Your task to perform on an android device: Open display settings Image 0: 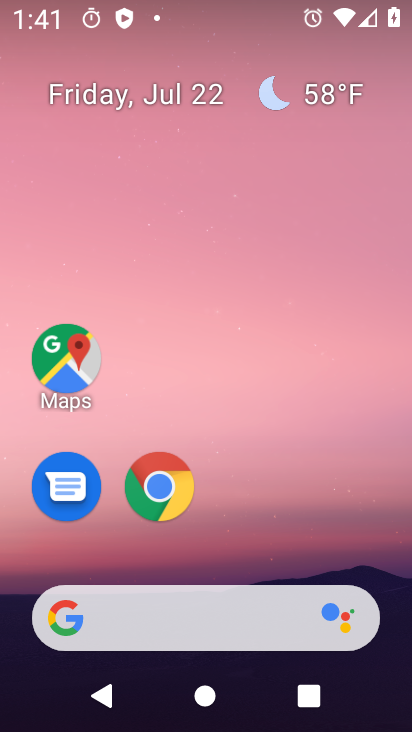
Step 0: press home button
Your task to perform on an android device: Open display settings Image 1: 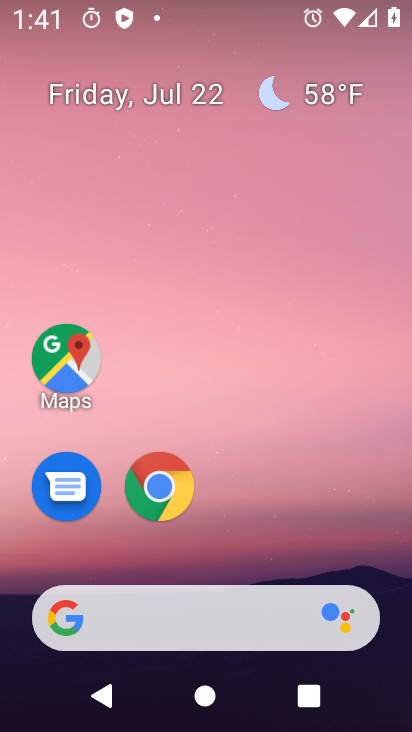
Step 1: drag from (356, 517) to (371, 169)
Your task to perform on an android device: Open display settings Image 2: 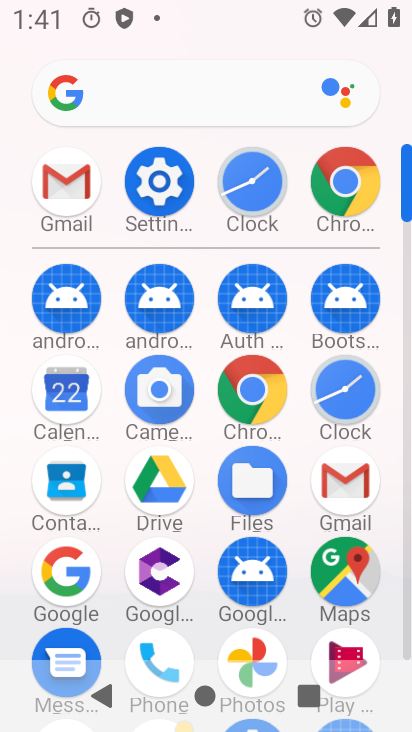
Step 2: click (154, 203)
Your task to perform on an android device: Open display settings Image 3: 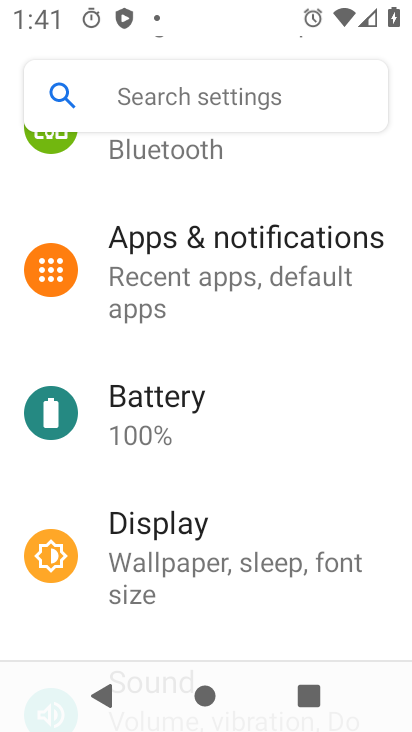
Step 3: drag from (300, 423) to (317, 294)
Your task to perform on an android device: Open display settings Image 4: 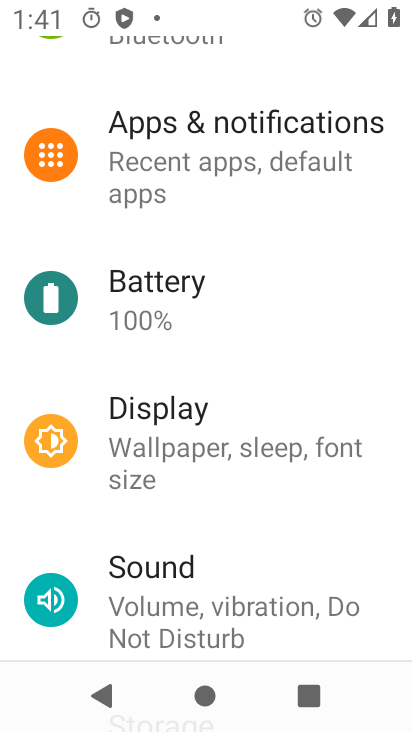
Step 4: drag from (348, 512) to (350, 376)
Your task to perform on an android device: Open display settings Image 5: 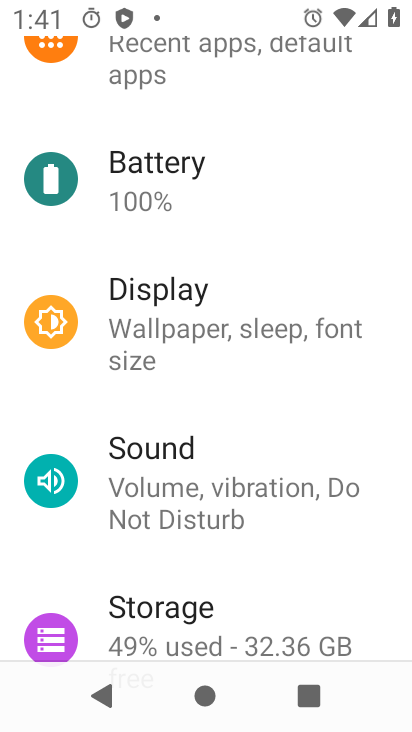
Step 5: drag from (350, 503) to (355, 384)
Your task to perform on an android device: Open display settings Image 6: 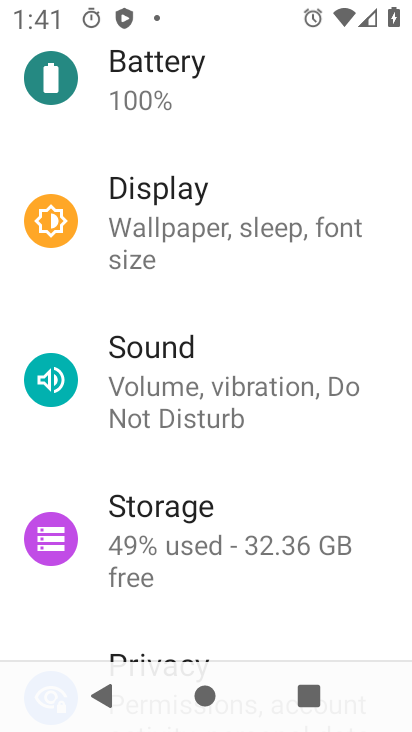
Step 6: drag from (347, 585) to (350, 453)
Your task to perform on an android device: Open display settings Image 7: 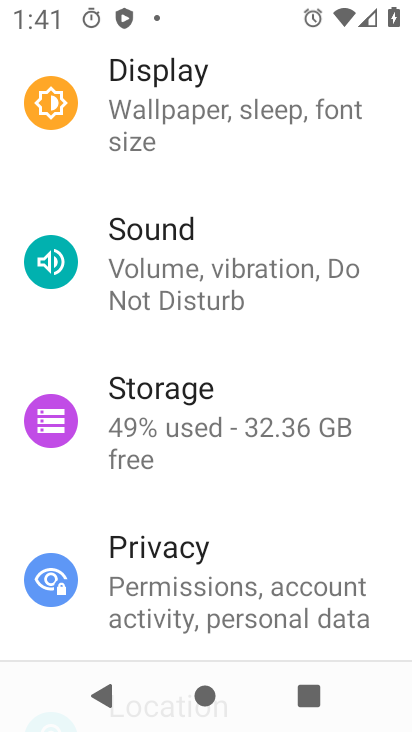
Step 7: drag from (354, 529) to (356, 417)
Your task to perform on an android device: Open display settings Image 8: 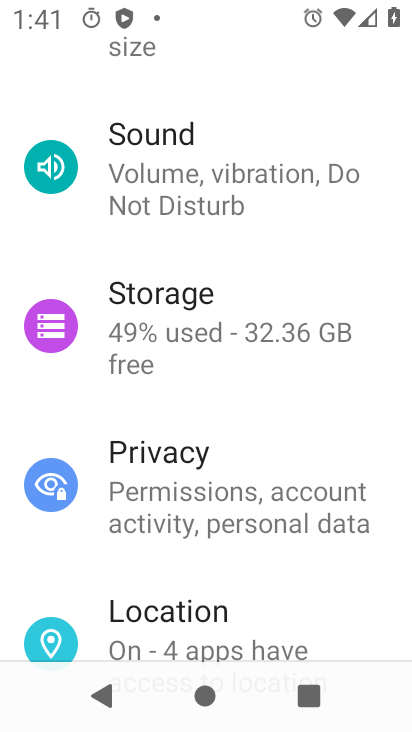
Step 8: drag from (353, 598) to (353, 408)
Your task to perform on an android device: Open display settings Image 9: 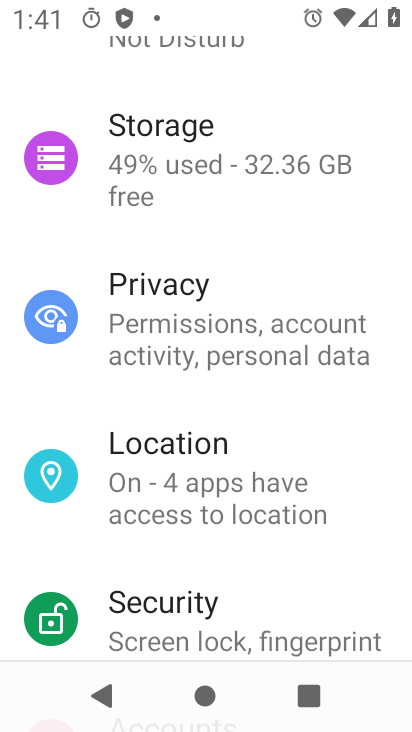
Step 9: drag from (336, 563) to (337, 449)
Your task to perform on an android device: Open display settings Image 10: 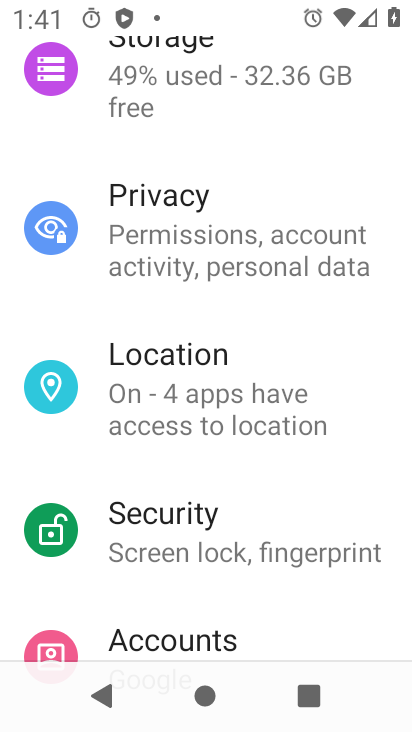
Step 10: drag from (331, 577) to (334, 478)
Your task to perform on an android device: Open display settings Image 11: 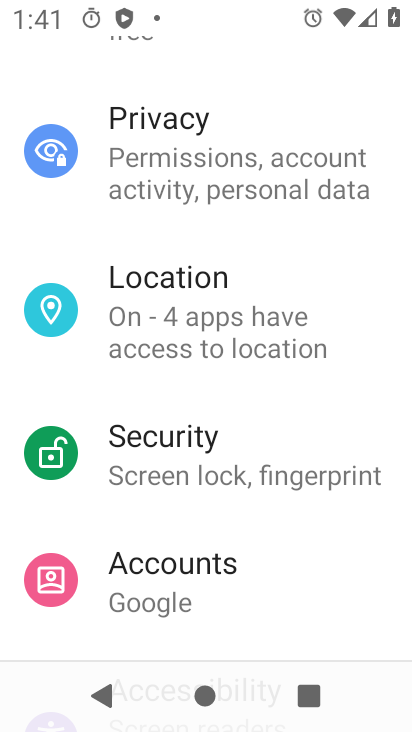
Step 11: drag from (338, 342) to (338, 456)
Your task to perform on an android device: Open display settings Image 12: 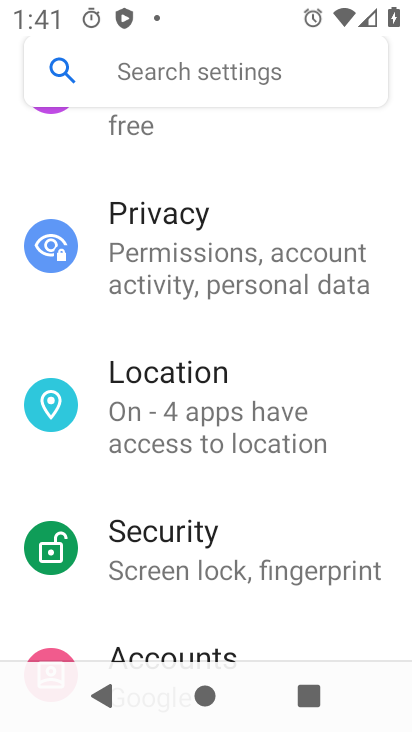
Step 12: drag from (338, 355) to (341, 459)
Your task to perform on an android device: Open display settings Image 13: 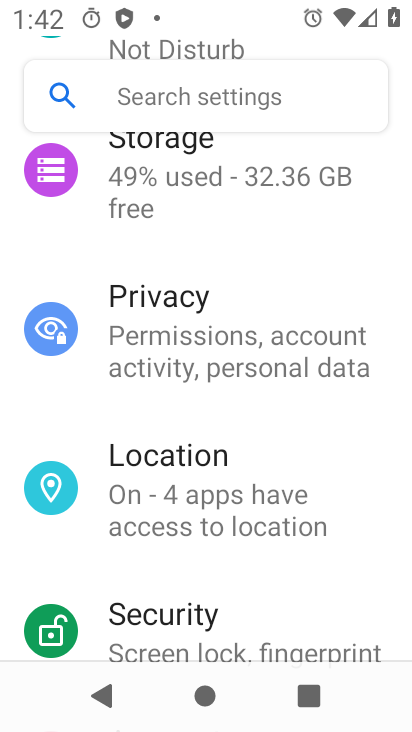
Step 13: drag from (350, 295) to (352, 418)
Your task to perform on an android device: Open display settings Image 14: 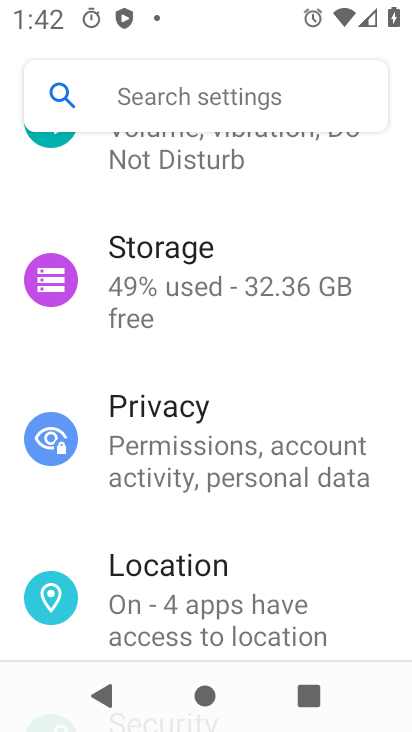
Step 14: drag from (367, 285) to (369, 391)
Your task to perform on an android device: Open display settings Image 15: 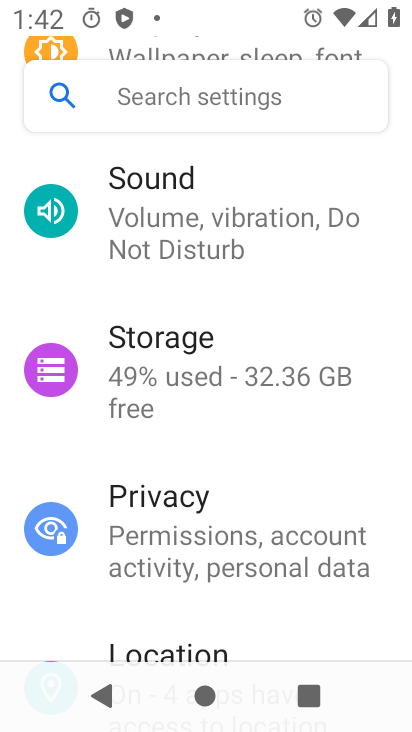
Step 15: drag from (369, 274) to (367, 418)
Your task to perform on an android device: Open display settings Image 16: 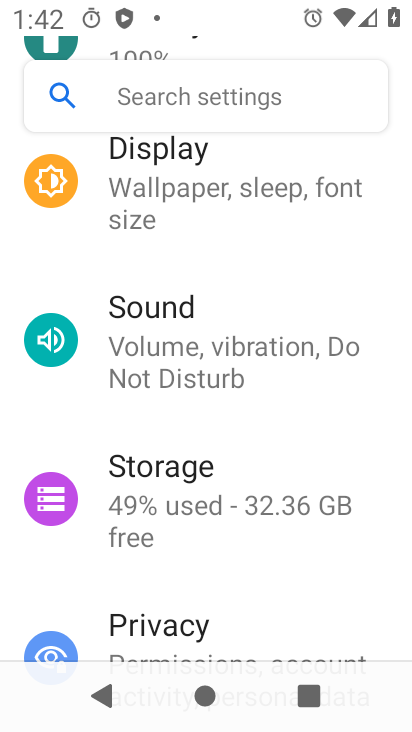
Step 16: drag from (351, 266) to (342, 403)
Your task to perform on an android device: Open display settings Image 17: 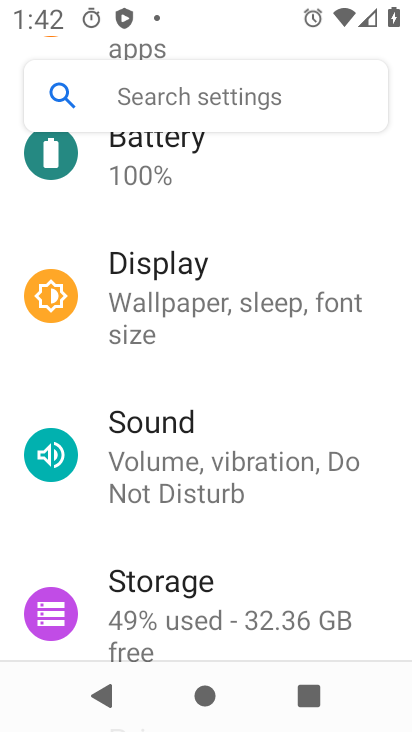
Step 17: click (332, 333)
Your task to perform on an android device: Open display settings Image 18: 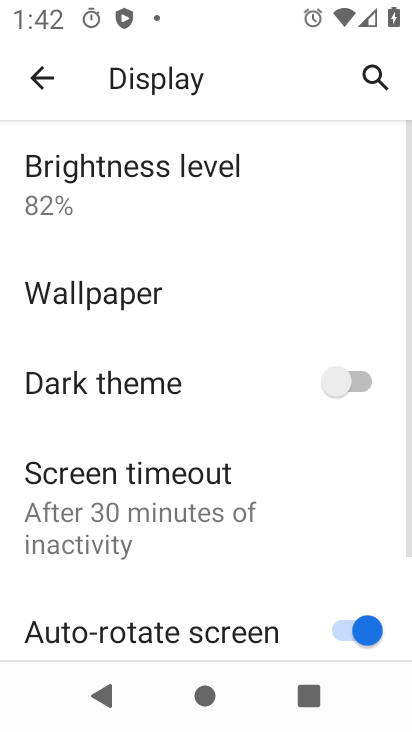
Step 18: drag from (301, 445) to (300, 361)
Your task to perform on an android device: Open display settings Image 19: 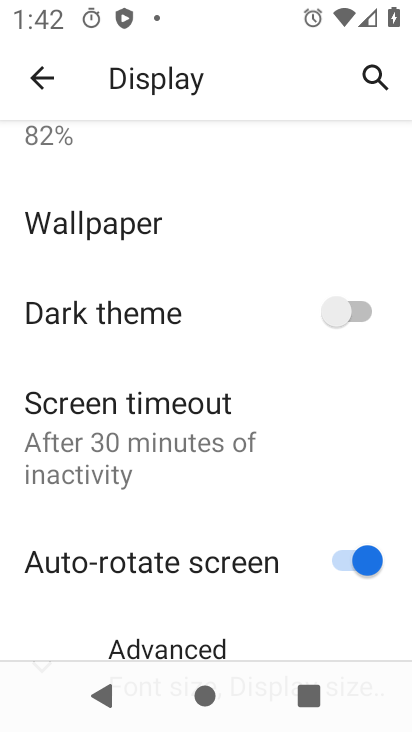
Step 19: drag from (300, 475) to (286, 331)
Your task to perform on an android device: Open display settings Image 20: 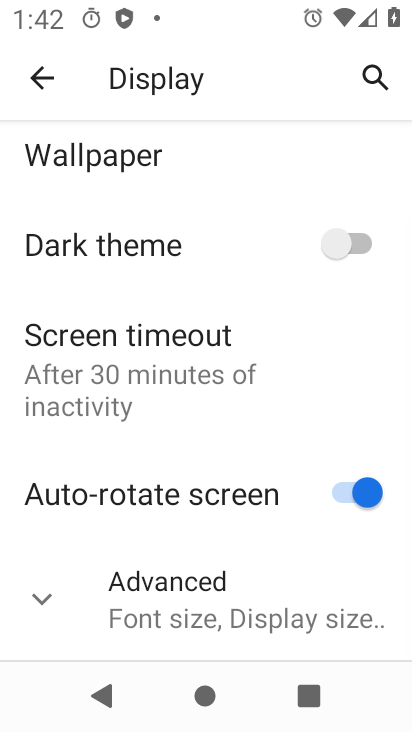
Step 20: click (285, 570)
Your task to perform on an android device: Open display settings Image 21: 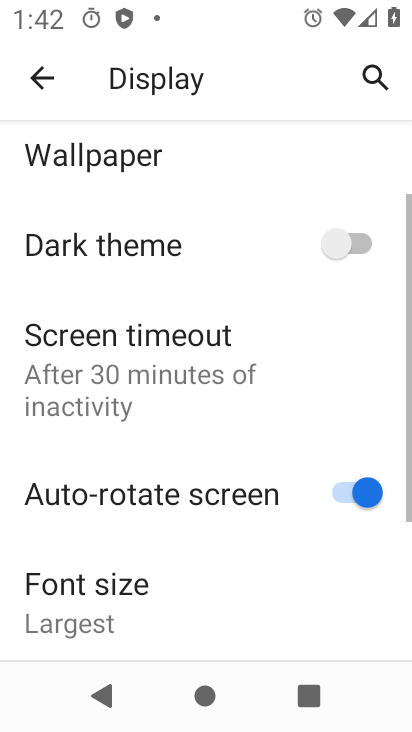
Step 21: task complete